Your task to perform on an android device: Open the calendar and show me this week's events Image 0: 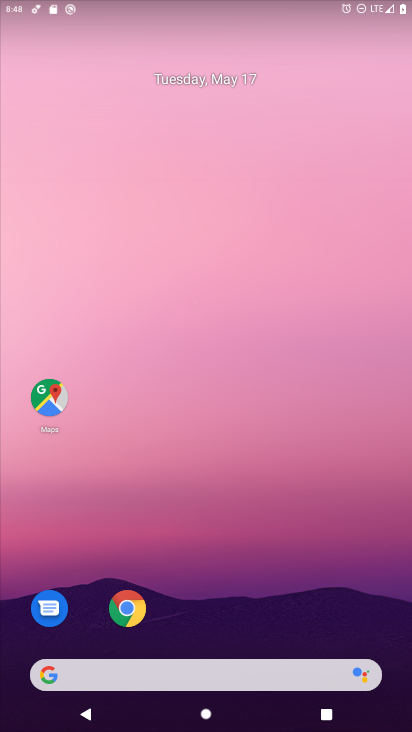
Step 0: drag from (222, 603) to (215, 66)
Your task to perform on an android device: Open the calendar and show me this week's events Image 1: 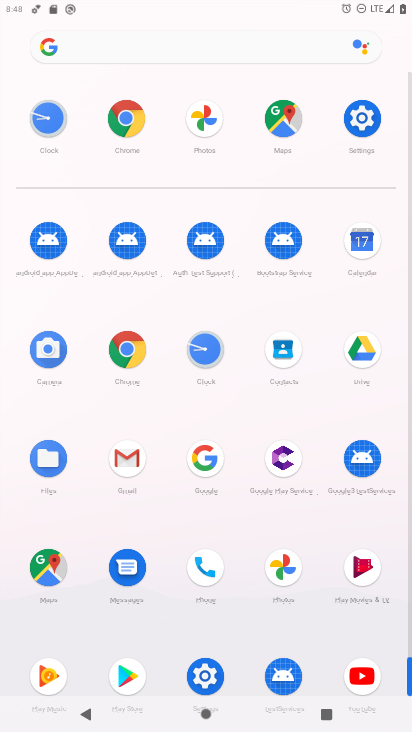
Step 1: click (361, 249)
Your task to perform on an android device: Open the calendar and show me this week's events Image 2: 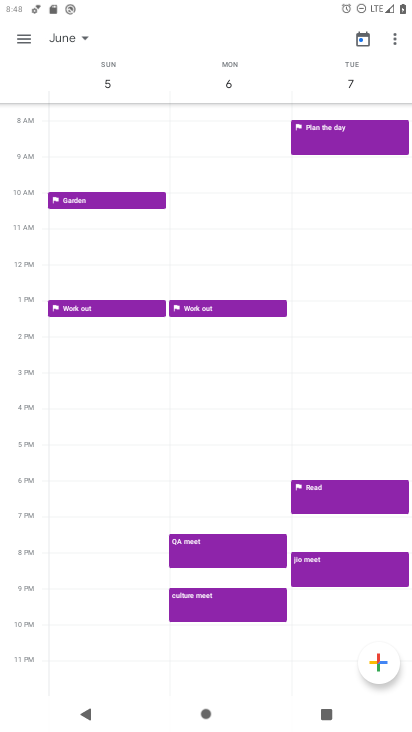
Step 2: click (24, 33)
Your task to perform on an android device: Open the calendar and show me this week's events Image 3: 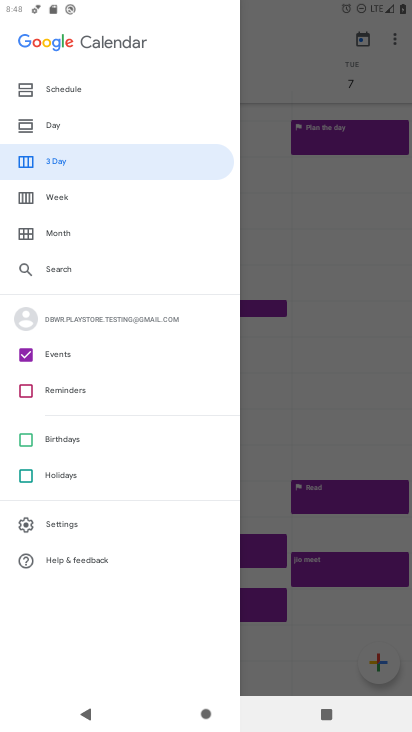
Step 3: click (56, 199)
Your task to perform on an android device: Open the calendar and show me this week's events Image 4: 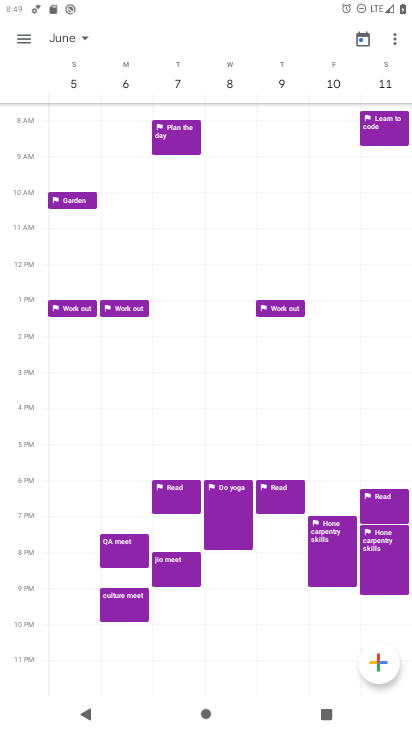
Step 4: task complete